Your task to perform on an android device: What's the weather? Image 0: 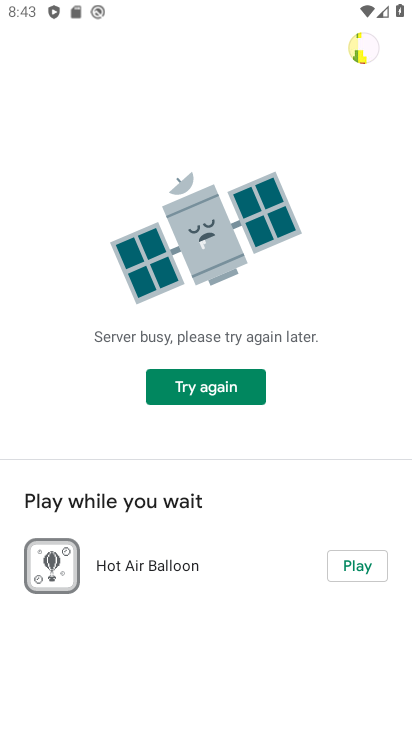
Step 0: press home button
Your task to perform on an android device: What's the weather? Image 1: 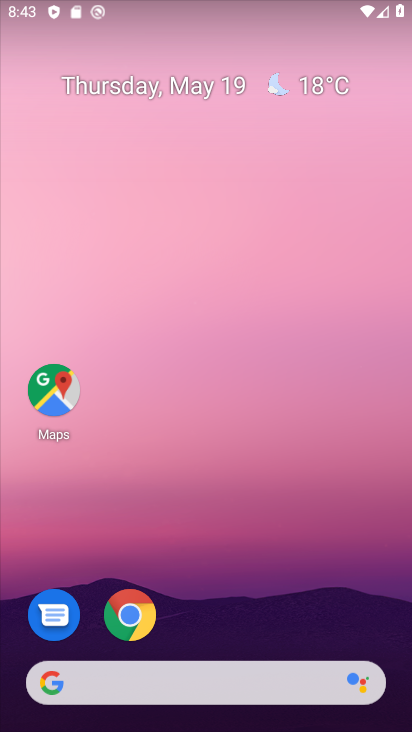
Step 1: click (305, 88)
Your task to perform on an android device: What's the weather? Image 2: 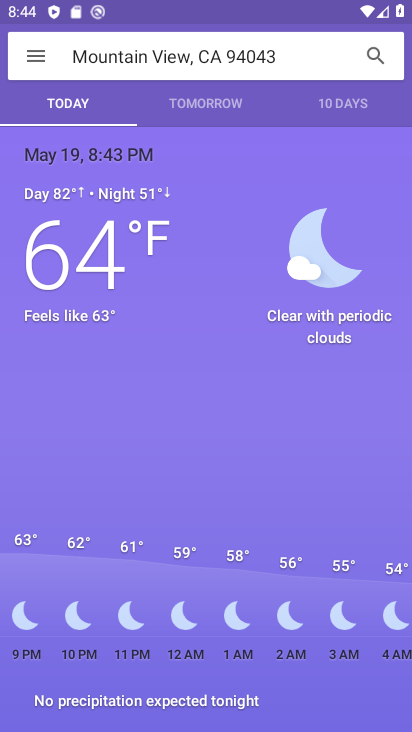
Step 2: task complete